Your task to perform on an android device: open app "Google Play Music" (install if not already installed) Image 0: 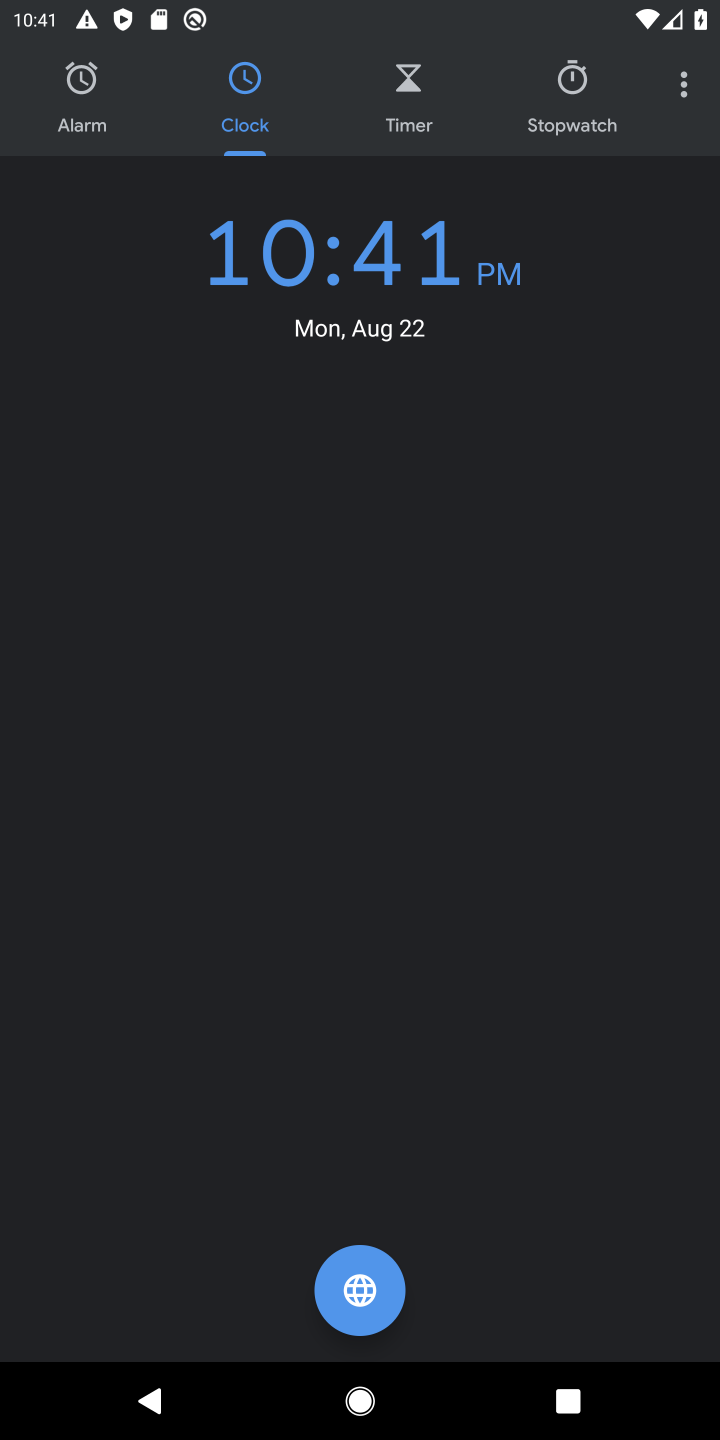
Step 0: press home button
Your task to perform on an android device: open app "Google Play Music" (install if not already installed) Image 1: 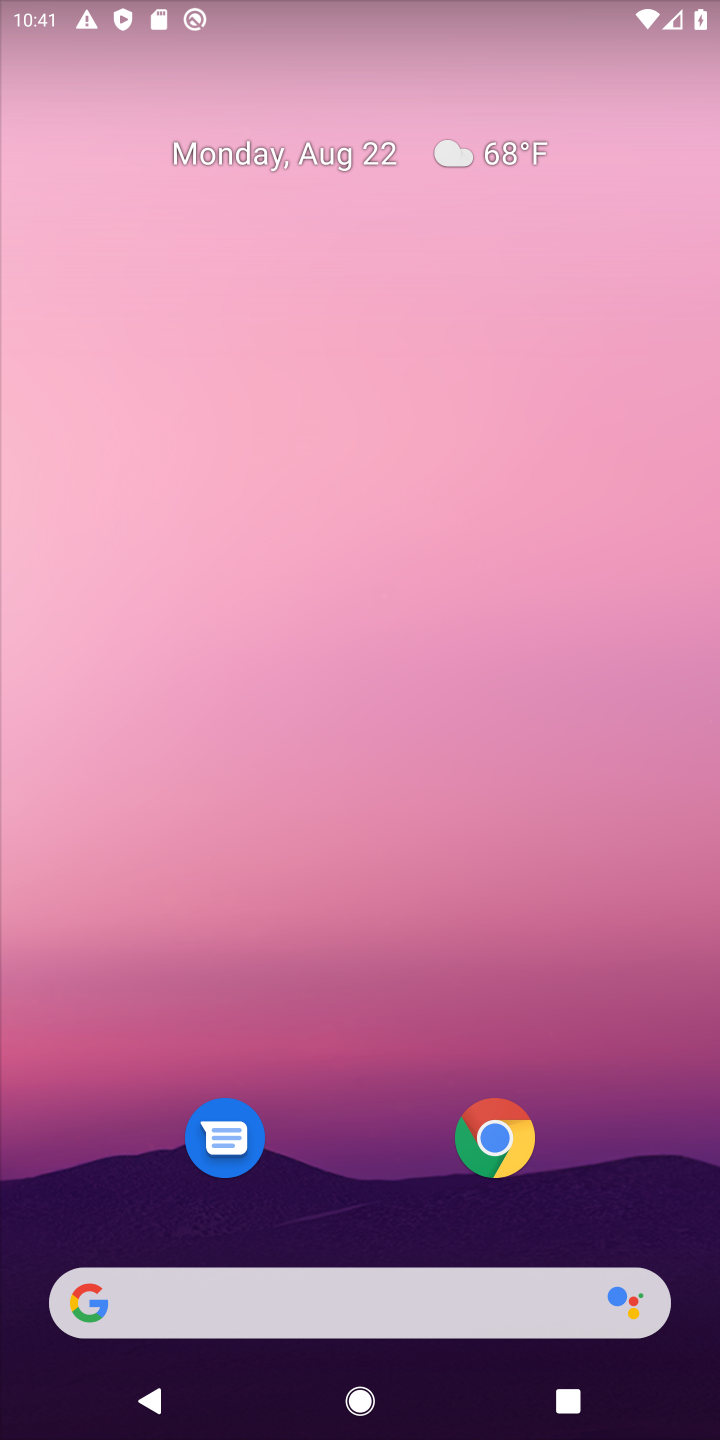
Step 1: drag from (257, 1317) to (441, 61)
Your task to perform on an android device: open app "Google Play Music" (install if not already installed) Image 2: 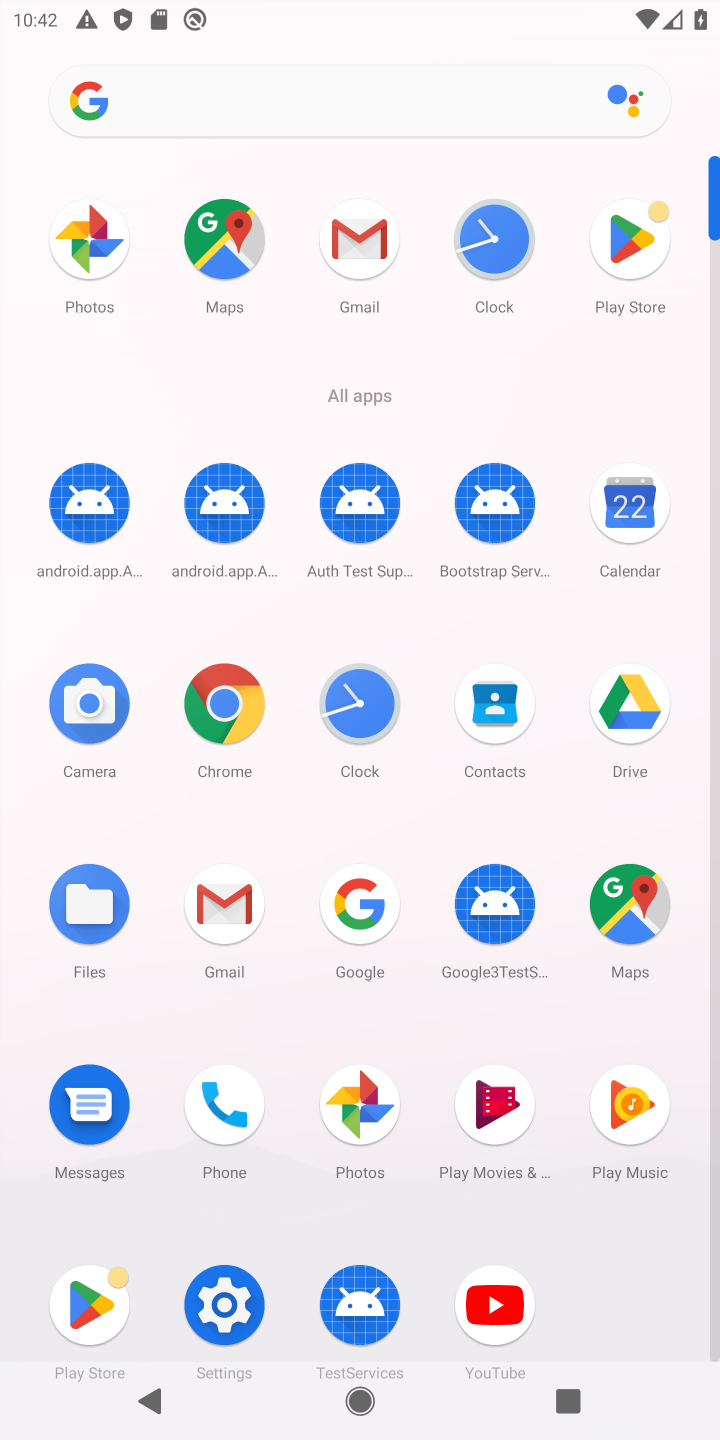
Step 2: click (637, 244)
Your task to perform on an android device: open app "Google Play Music" (install if not already installed) Image 3: 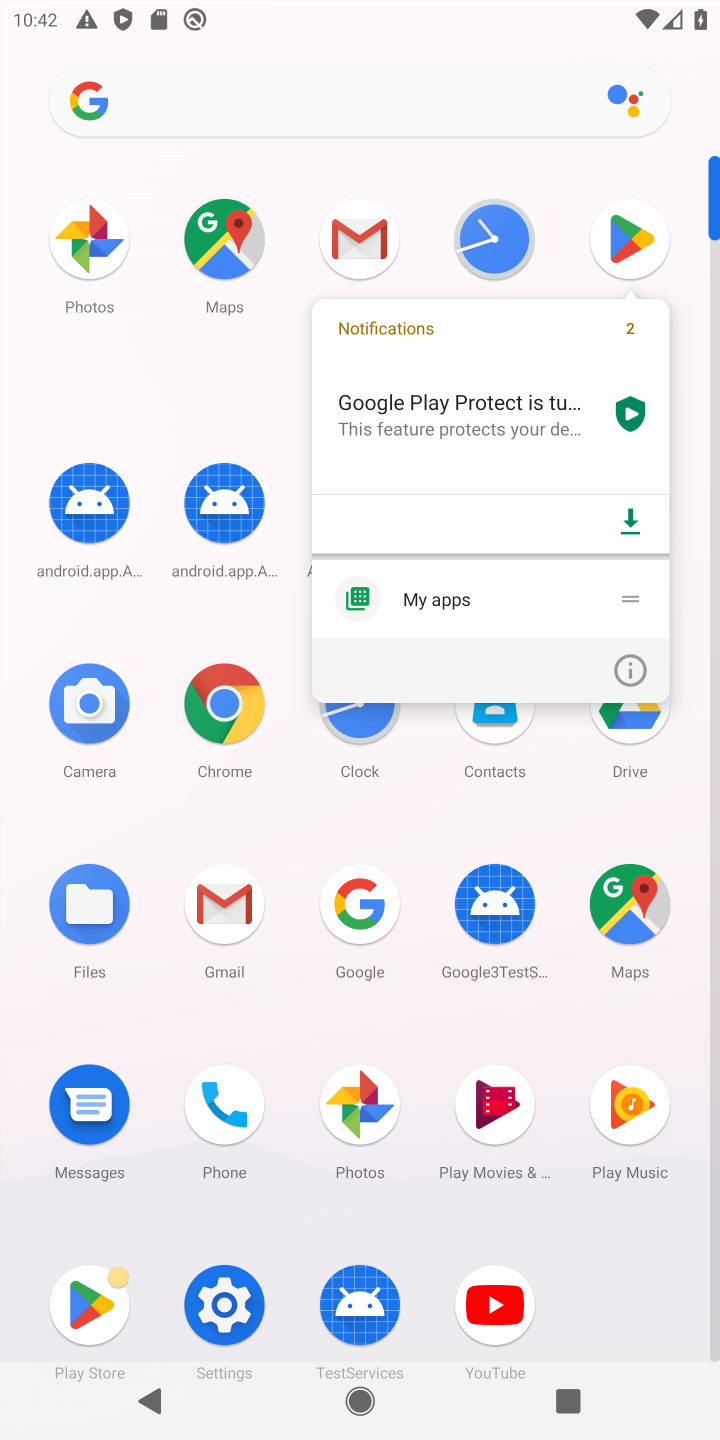
Step 3: click (637, 244)
Your task to perform on an android device: open app "Google Play Music" (install if not already installed) Image 4: 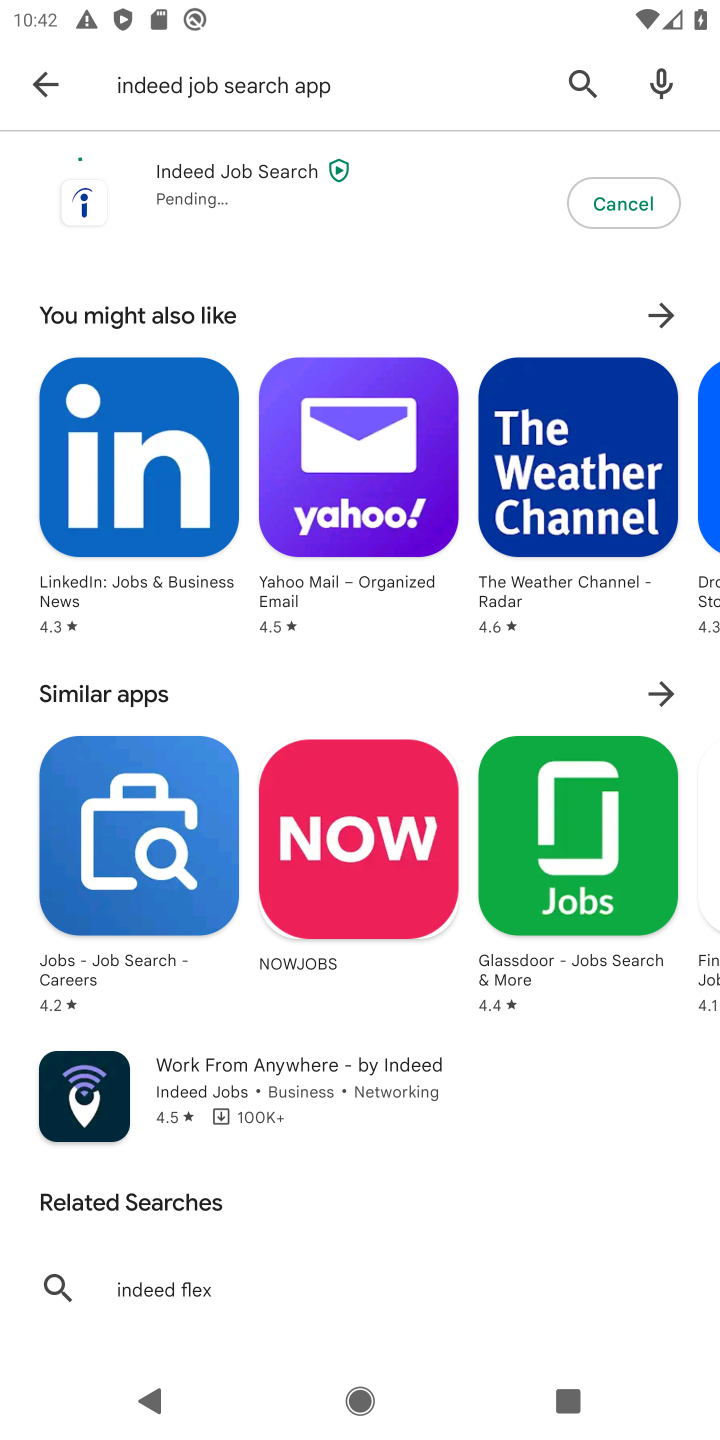
Step 4: press back button
Your task to perform on an android device: open app "Google Play Music" (install if not already installed) Image 5: 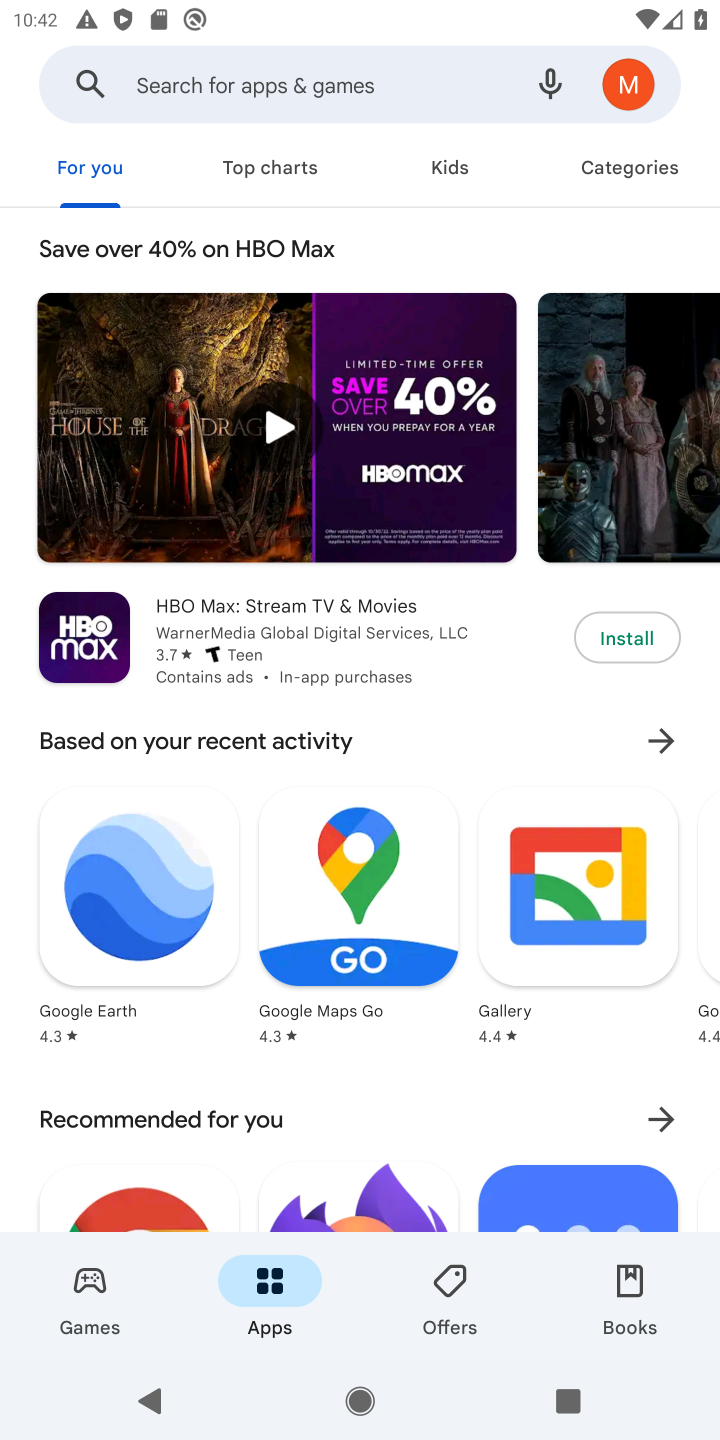
Step 5: click (331, 90)
Your task to perform on an android device: open app "Google Play Music" (install if not already installed) Image 6: 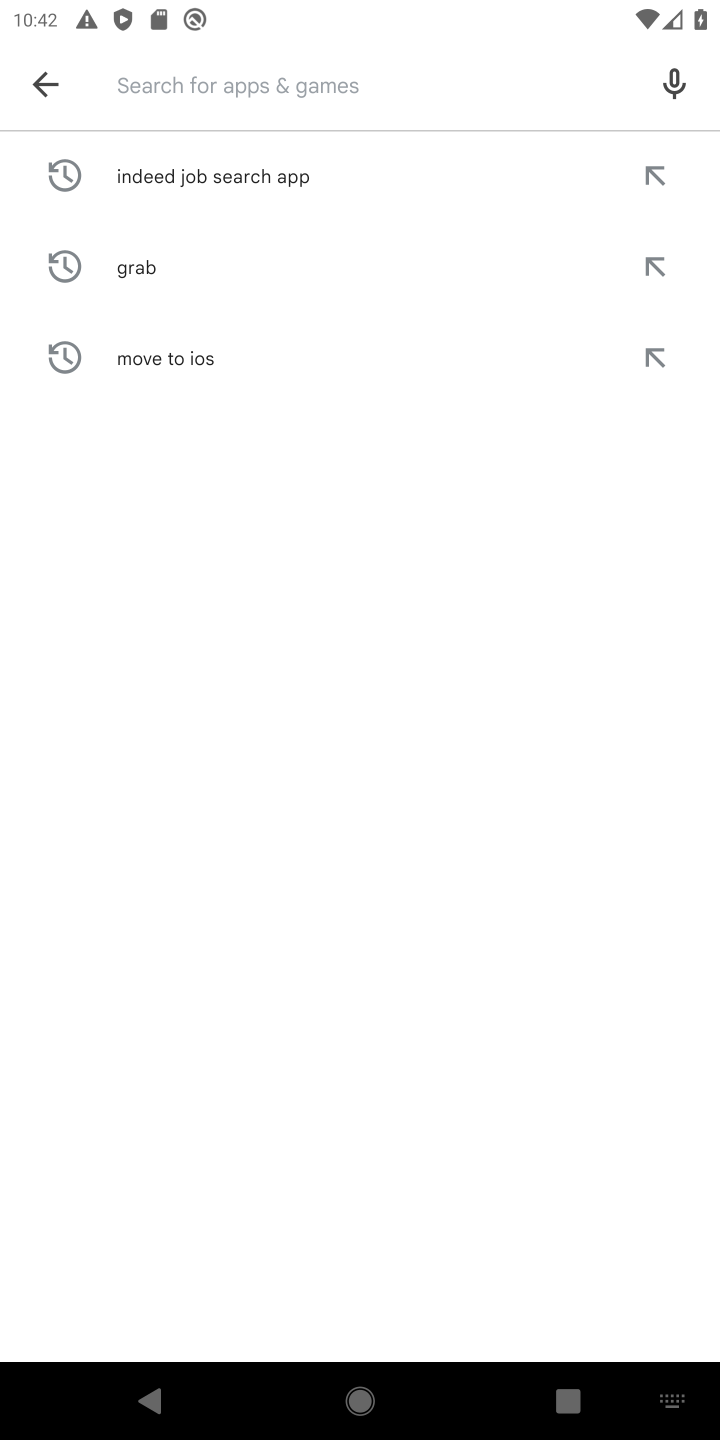
Step 6: type "Google Play Music"
Your task to perform on an android device: open app "Google Play Music" (install if not already installed) Image 7: 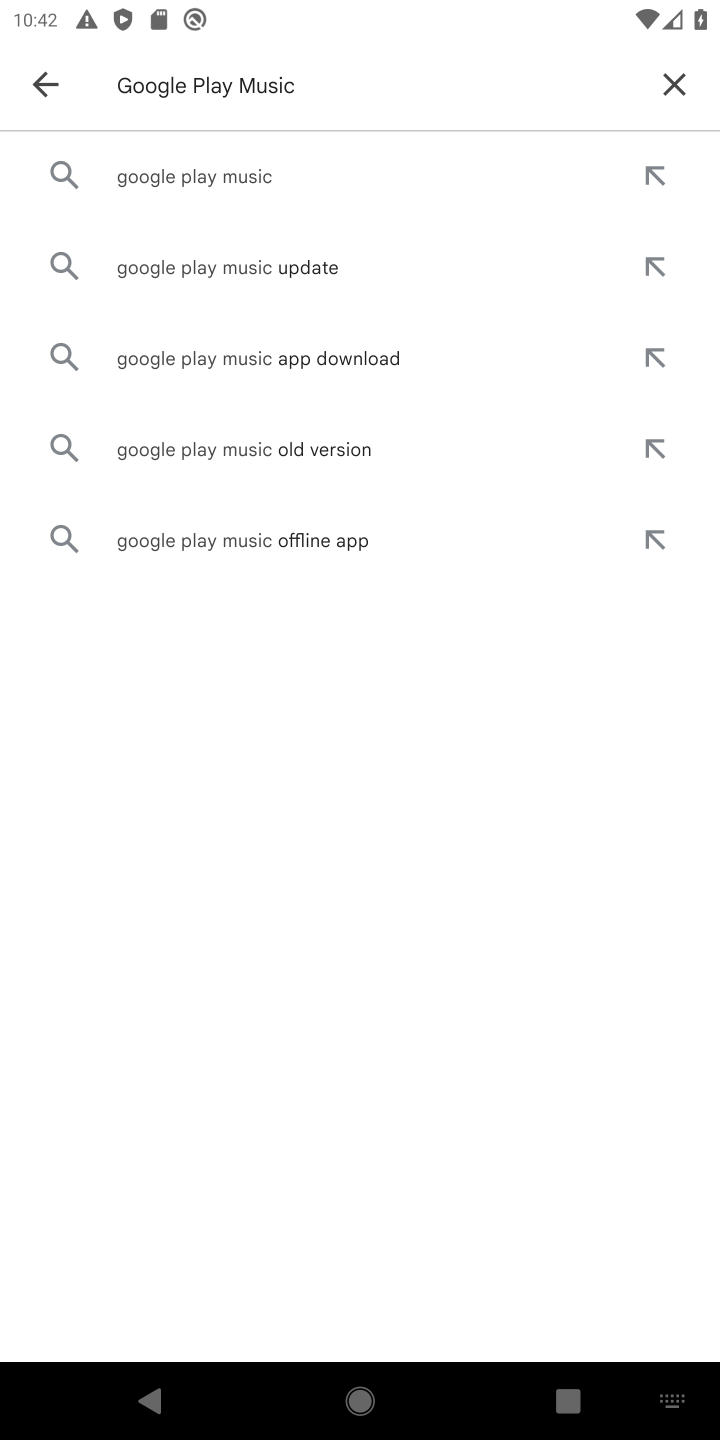
Step 7: click (236, 182)
Your task to perform on an android device: open app "Google Play Music" (install if not already installed) Image 8: 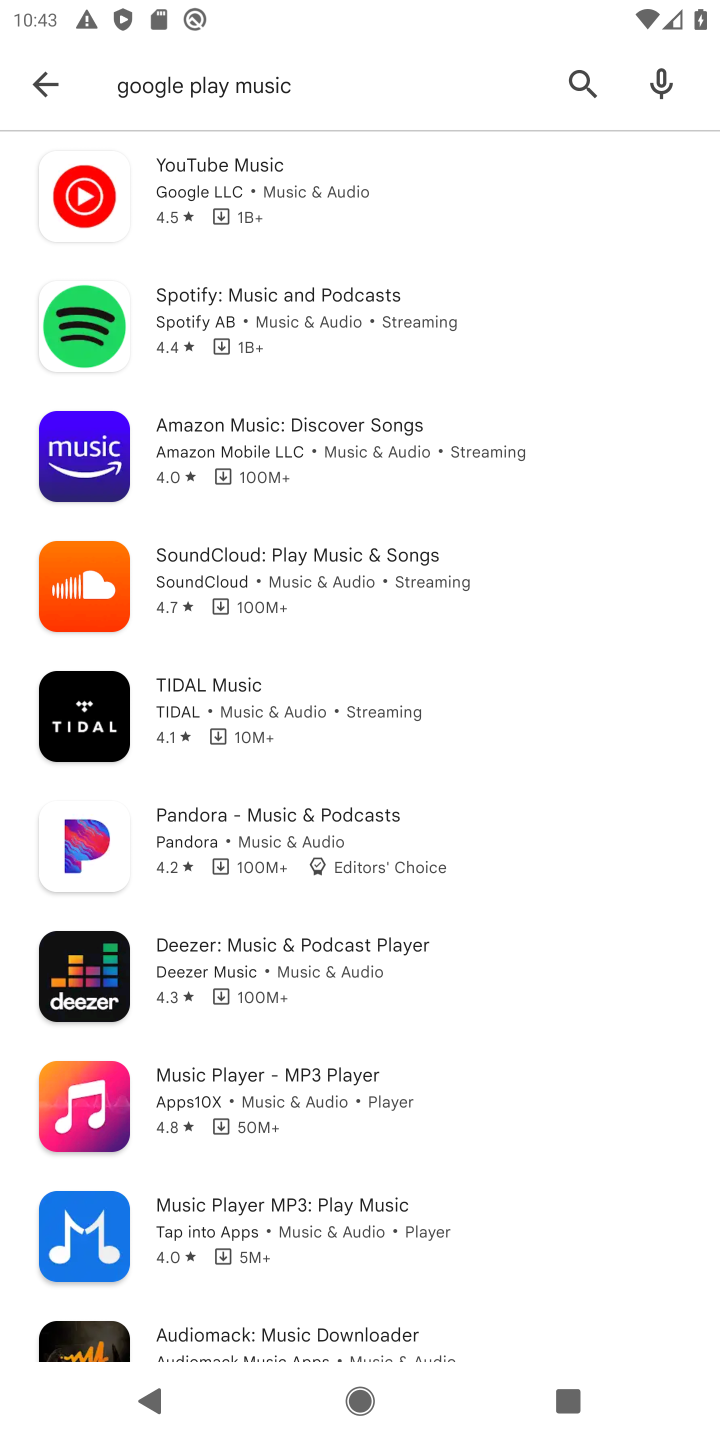
Step 8: click (198, 179)
Your task to perform on an android device: open app "Google Play Music" (install if not already installed) Image 9: 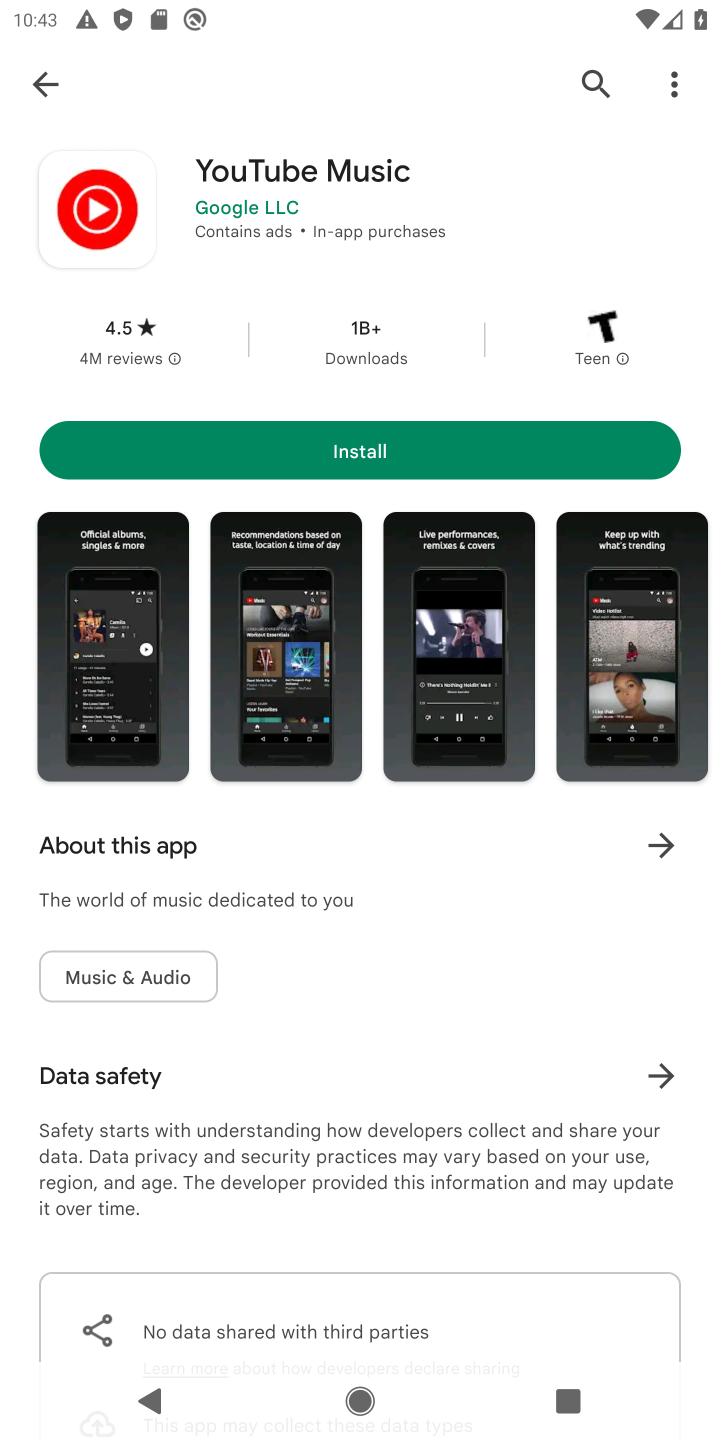
Step 9: click (522, 436)
Your task to perform on an android device: open app "Google Play Music" (install if not already installed) Image 10: 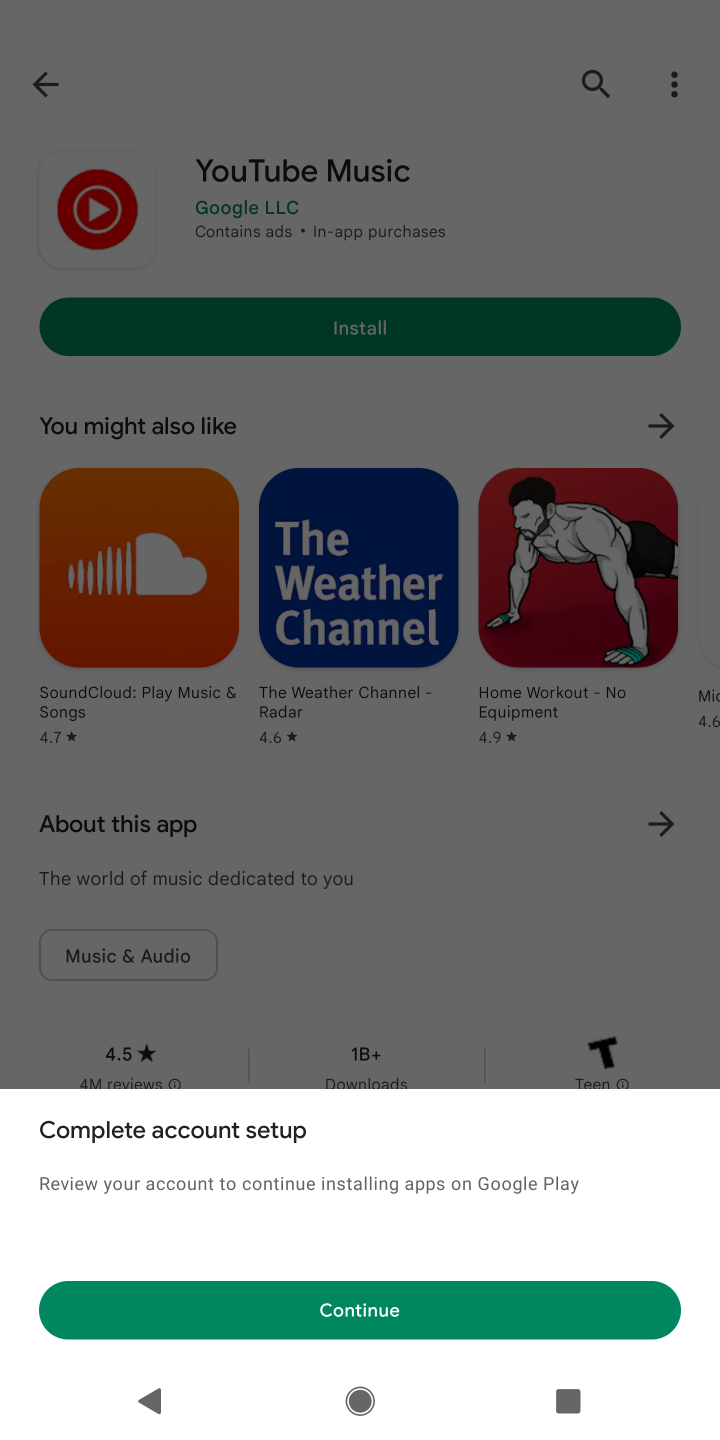
Step 10: click (238, 1295)
Your task to perform on an android device: open app "Google Play Music" (install if not already installed) Image 11: 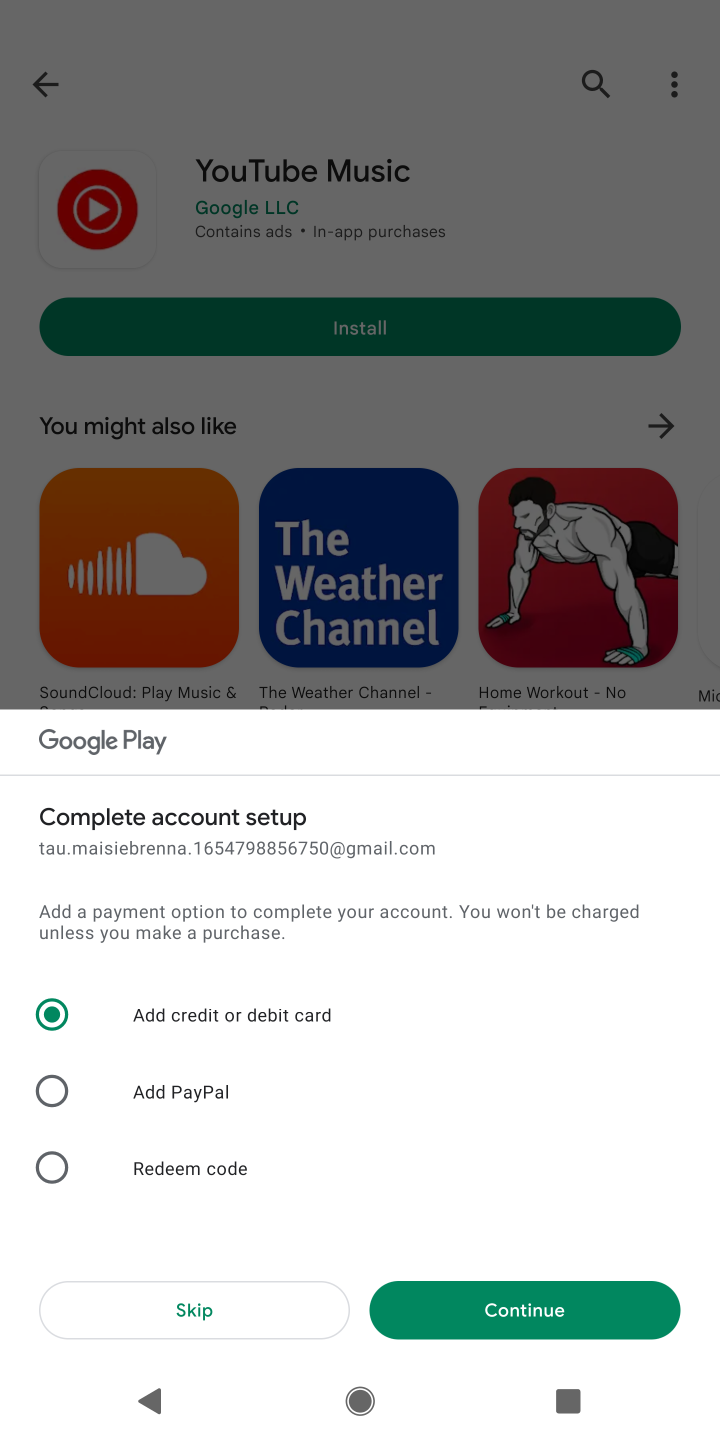
Step 11: click (198, 1307)
Your task to perform on an android device: open app "Google Play Music" (install if not already installed) Image 12: 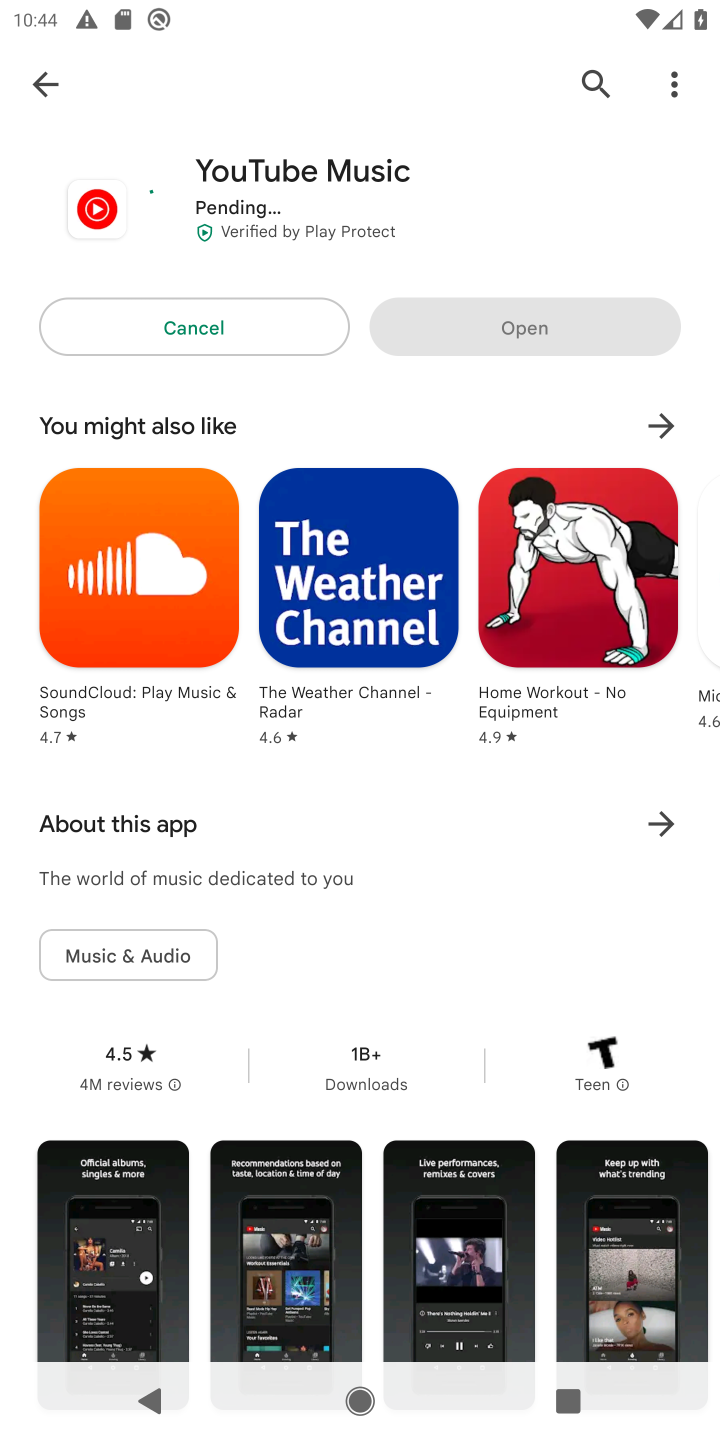
Step 12: task complete